Your task to perform on an android device: toggle sleep mode Image 0: 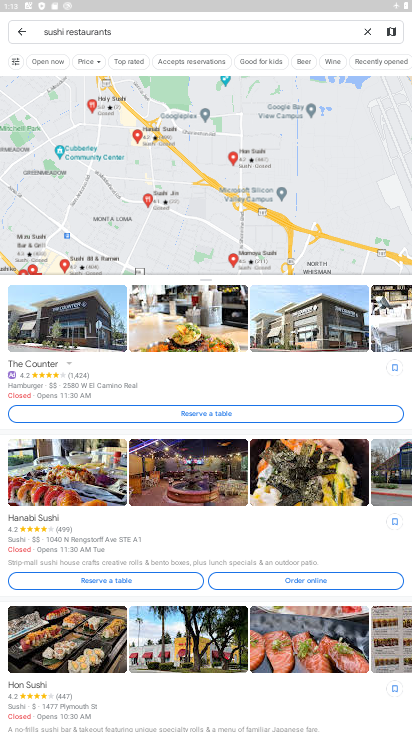
Step 0: press home button
Your task to perform on an android device: toggle sleep mode Image 1: 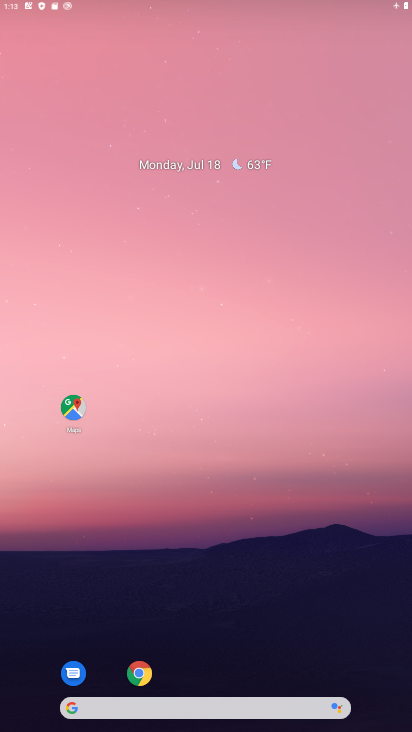
Step 1: drag from (125, 689) to (193, 270)
Your task to perform on an android device: toggle sleep mode Image 2: 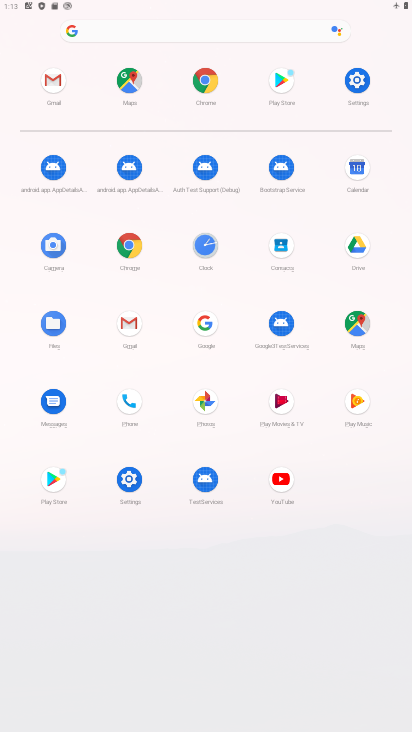
Step 2: click (354, 67)
Your task to perform on an android device: toggle sleep mode Image 3: 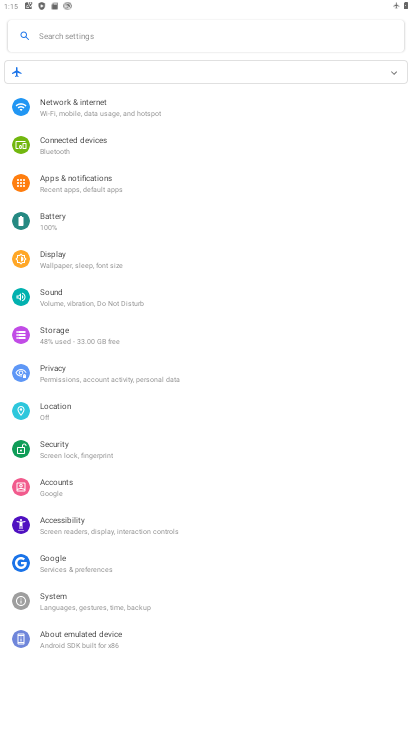
Step 3: task complete